Your task to perform on an android device: Open Reddit.com Image 0: 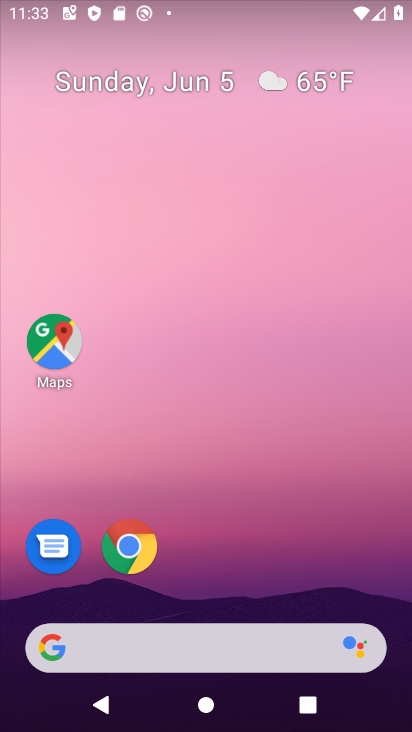
Step 0: drag from (144, 535) to (144, 258)
Your task to perform on an android device: Open Reddit.com Image 1: 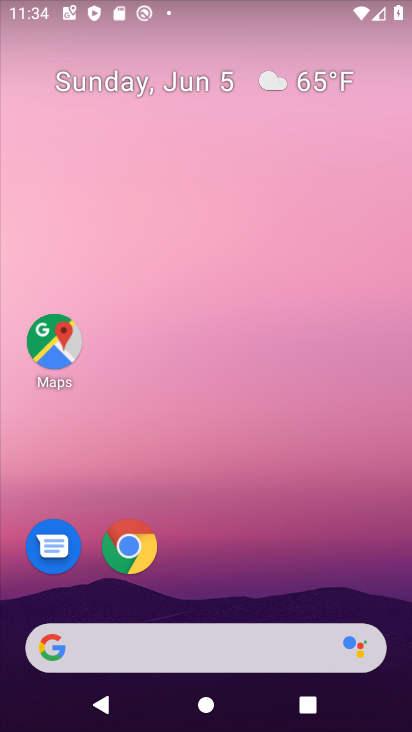
Step 1: drag from (135, 635) to (137, 272)
Your task to perform on an android device: Open Reddit.com Image 2: 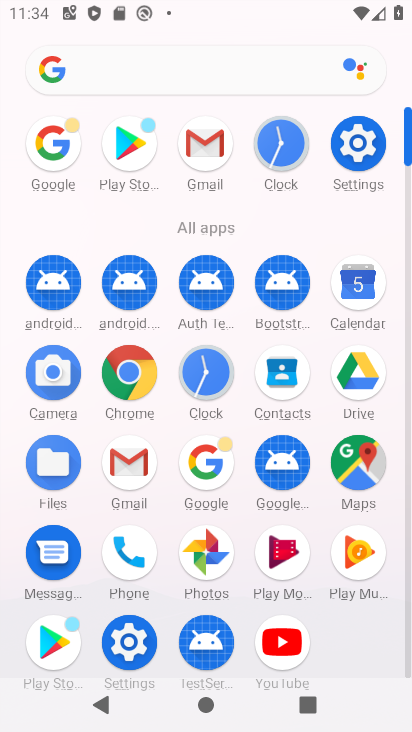
Step 2: click (205, 468)
Your task to perform on an android device: Open Reddit.com Image 3: 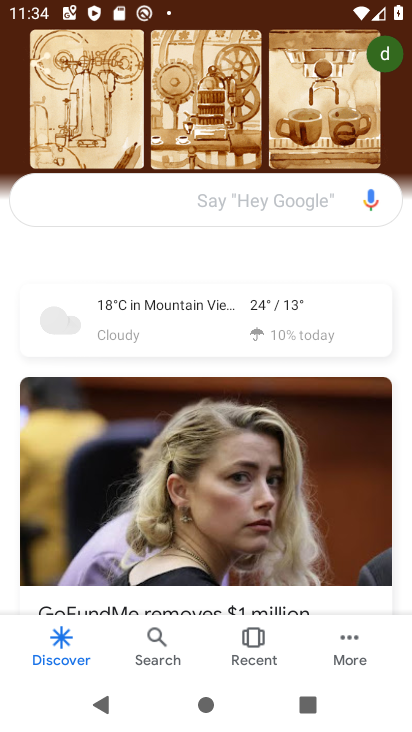
Step 3: drag from (126, 212) to (15, 212)
Your task to perform on an android device: Open Reddit.com Image 4: 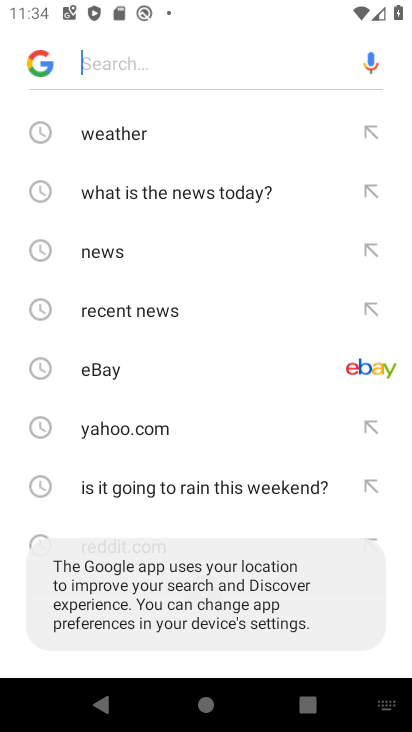
Step 4: drag from (140, 480) to (130, 176)
Your task to perform on an android device: Open Reddit.com Image 5: 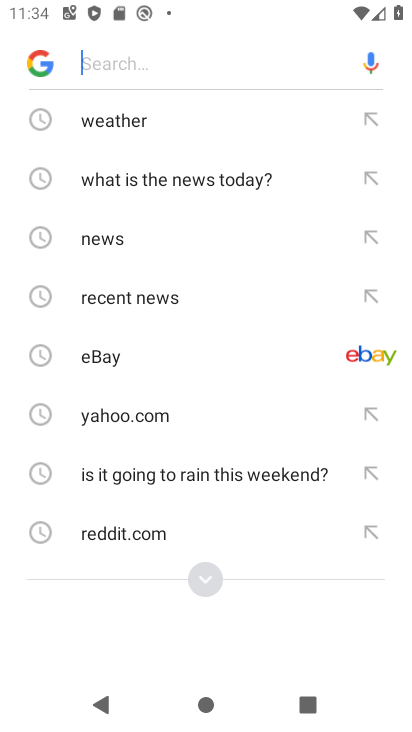
Step 5: click (195, 576)
Your task to perform on an android device: Open Reddit.com Image 6: 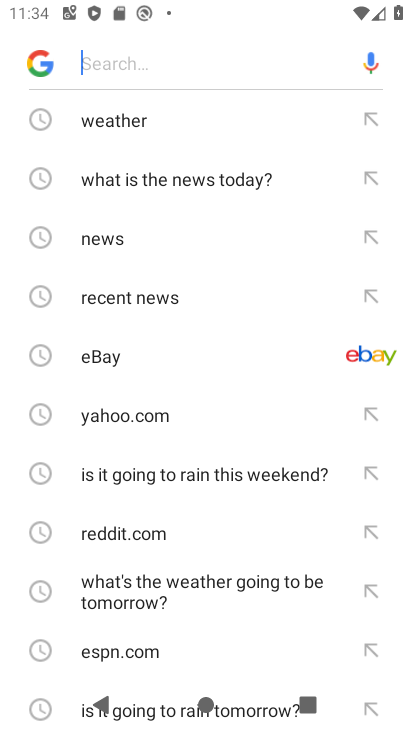
Step 6: click (144, 536)
Your task to perform on an android device: Open Reddit.com Image 7: 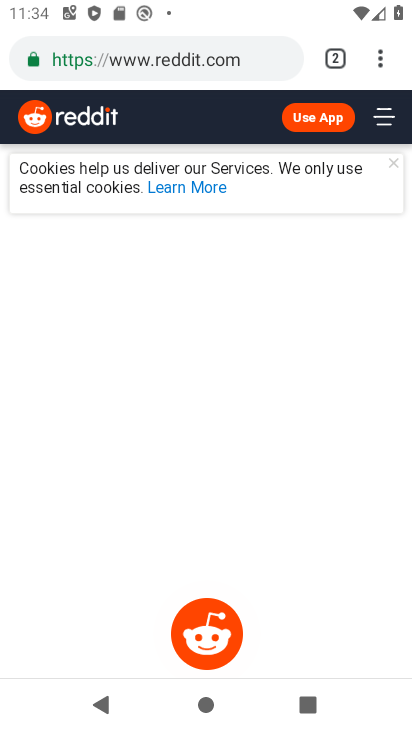
Step 7: task complete